Your task to perform on an android device: Show me popular videos on Youtube Image 0: 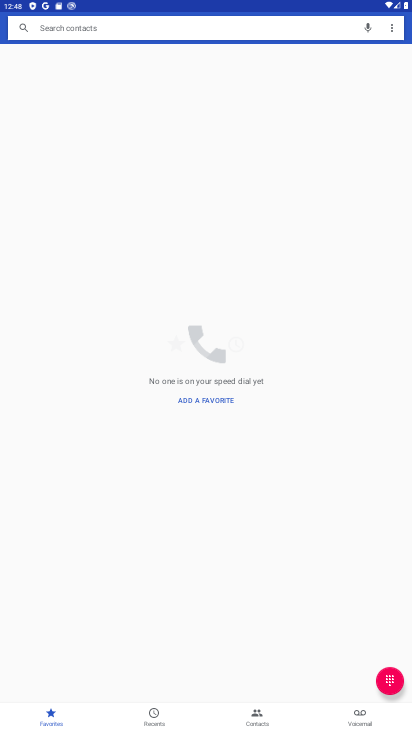
Step 0: press home button
Your task to perform on an android device: Show me popular videos on Youtube Image 1: 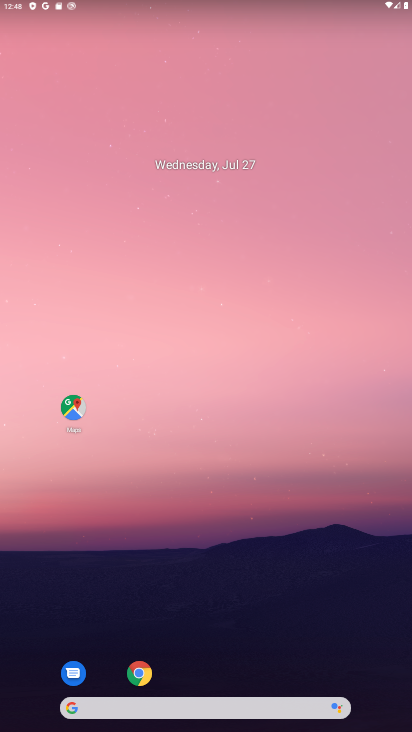
Step 1: drag from (231, 679) to (220, 66)
Your task to perform on an android device: Show me popular videos on Youtube Image 2: 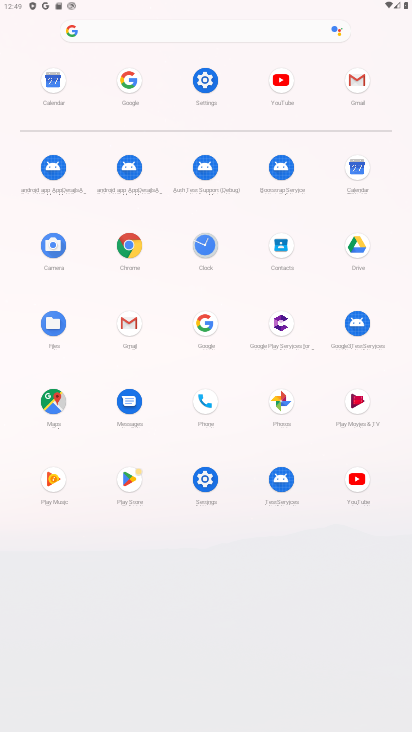
Step 2: click (355, 473)
Your task to perform on an android device: Show me popular videos on Youtube Image 3: 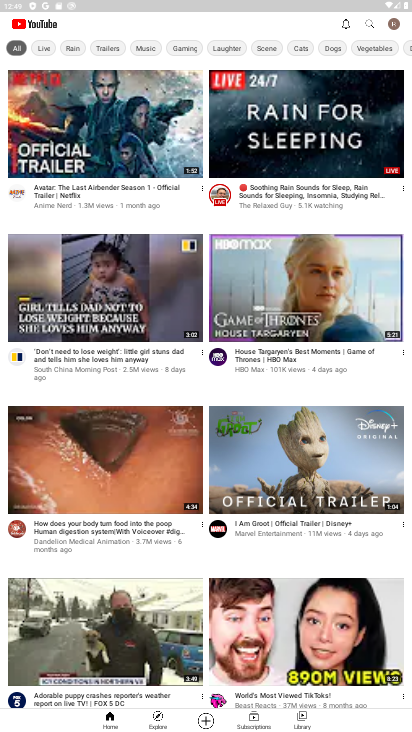
Step 3: task complete